Your task to perform on an android device: What is the recent news? Image 0: 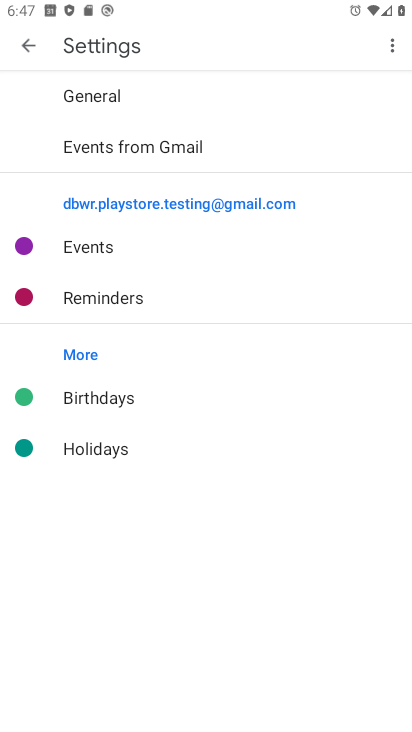
Step 0: press home button
Your task to perform on an android device: What is the recent news? Image 1: 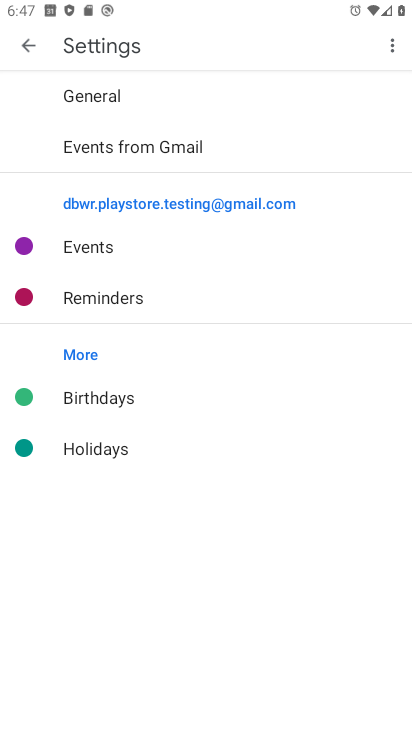
Step 1: drag from (208, 647) to (182, 53)
Your task to perform on an android device: What is the recent news? Image 2: 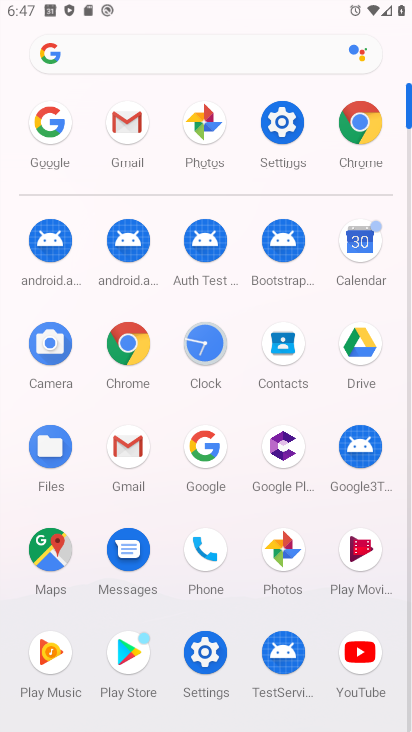
Step 2: click (221, 461)
Your task to perform on an android device: What is the recent news? Image 3: 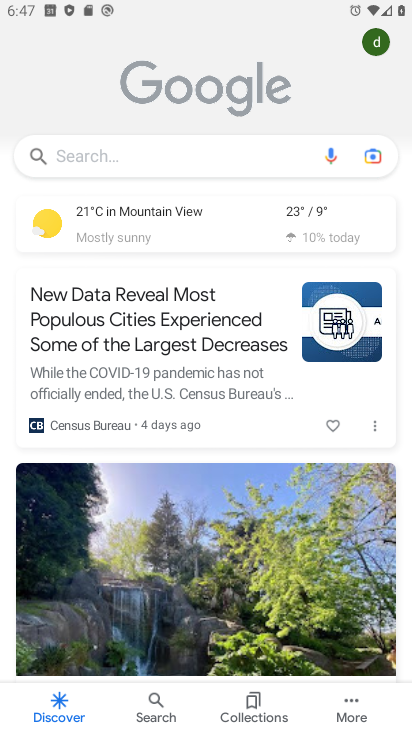
Step 3: click (146, 165)
Your task to perform on an android device: What is the recent news? Image 4: 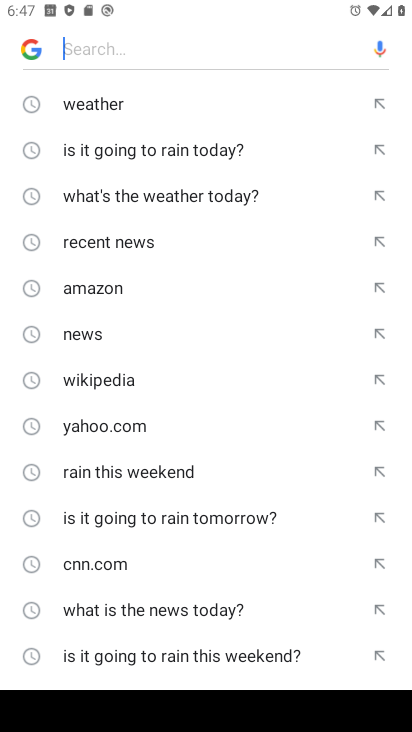
Step 4: drag from (148, 561) to (225, 203)
Your task to perform on an android device: What is the recent news? Image 5: 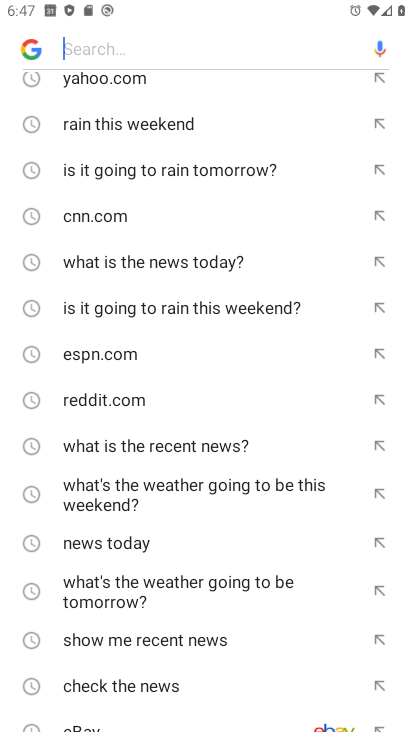
Step 5: drag from (131, 693) to (197, 339)
Your task to perform on an android device: What is the recent news? Image 6: 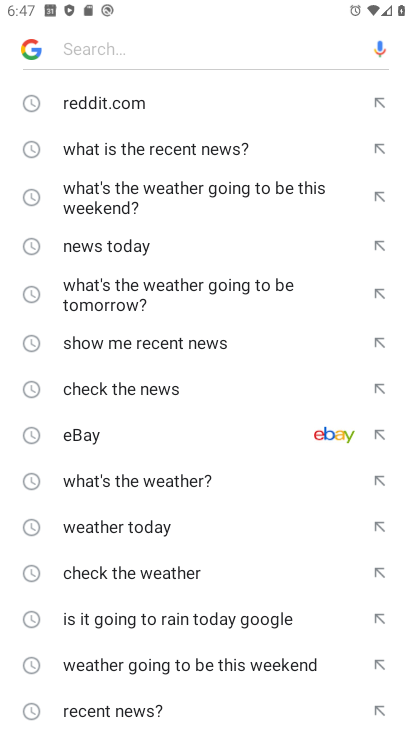
Step 6: click (90, 718)
Your task to perform on an android device: What is the recent news? Image 7: 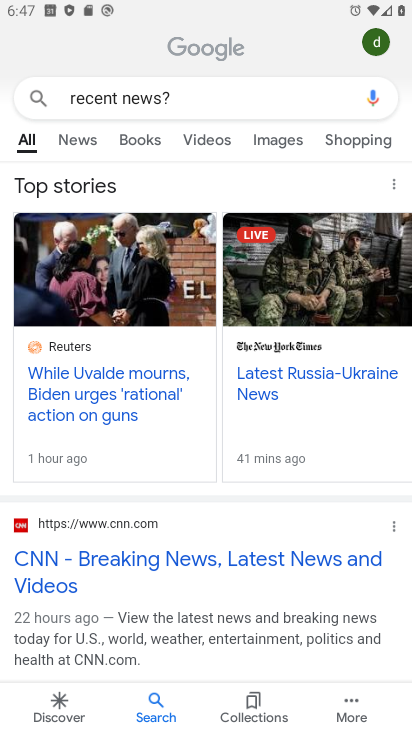
Step 7: task complete